Your task to perform on an android device: delete browsing data in the chrome app Image 0: 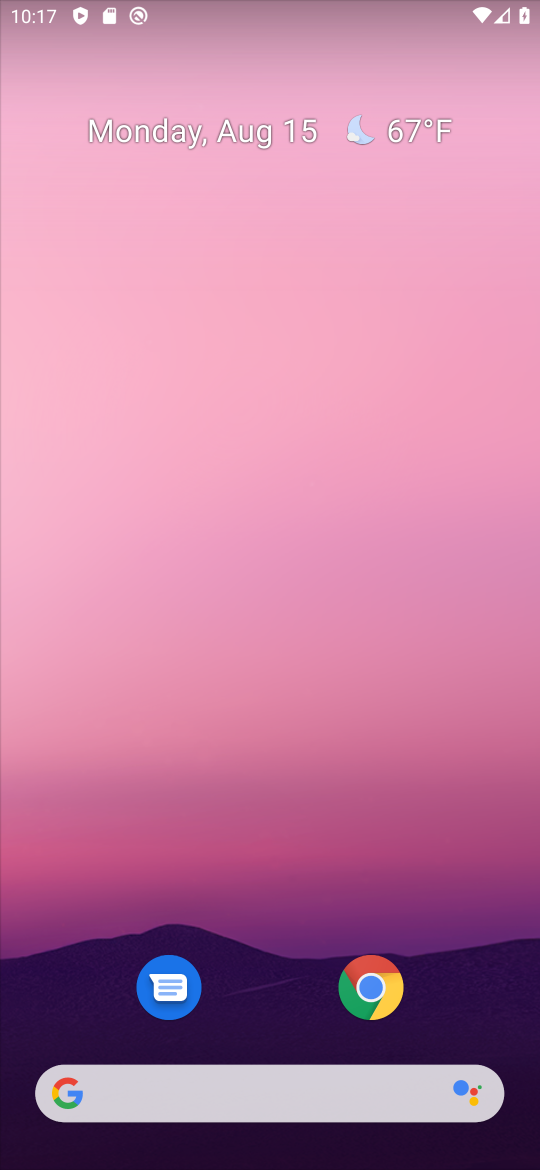
Step 0: drag from (247, 1042) to (176, 0)
Your task to perform on an android device: delete browsing data in the chrome app Image 1: 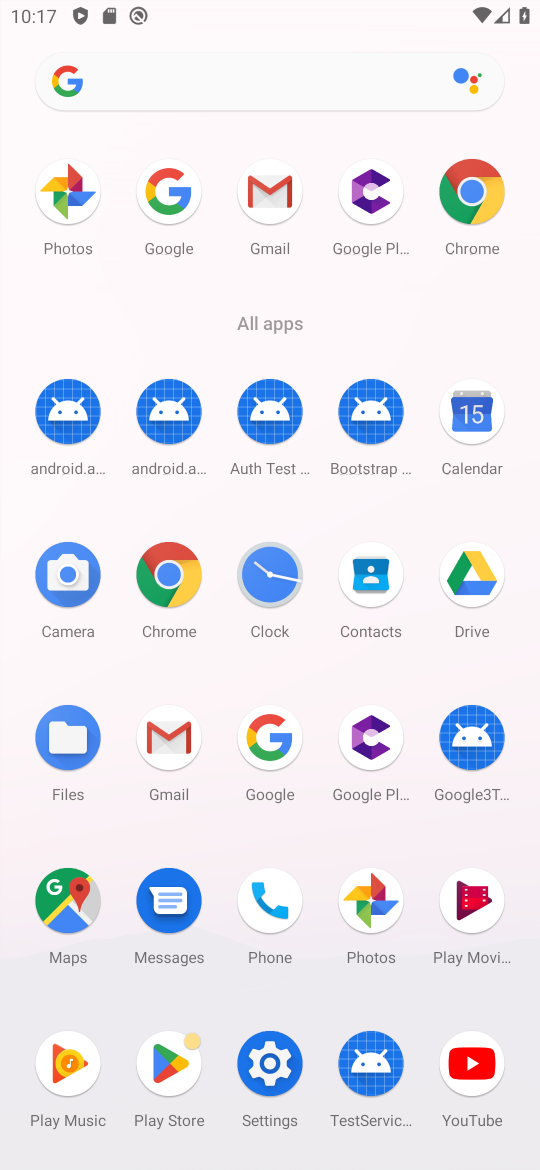
Step 1: click (142, 565)
Your task to perform on an android device: delete browsing data in the chrome app Image 2: 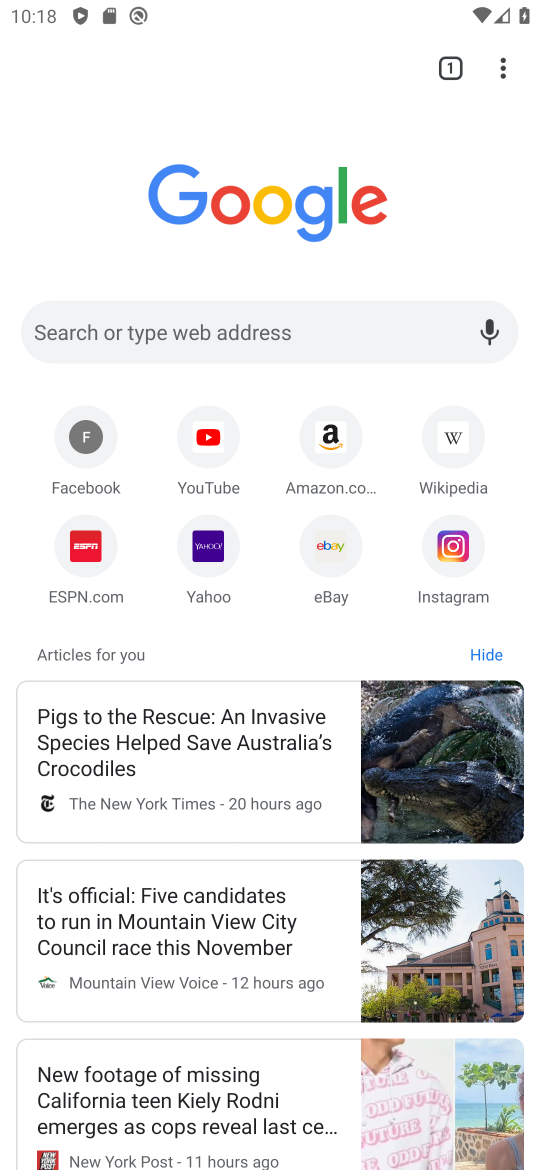
Step 2: click (492, 66)
Your task to perform on an android device: delete browsing data in the chrome app Image 3: 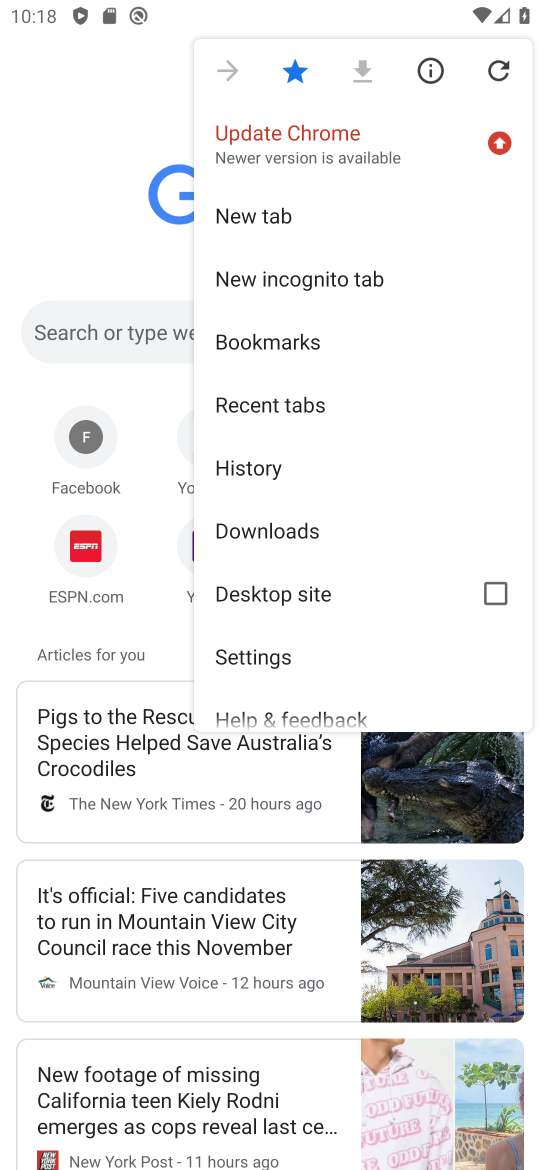
Step 3: click (266, 643)
Your task to perform on an android device: delete browsing data in the chrome app Image 4: 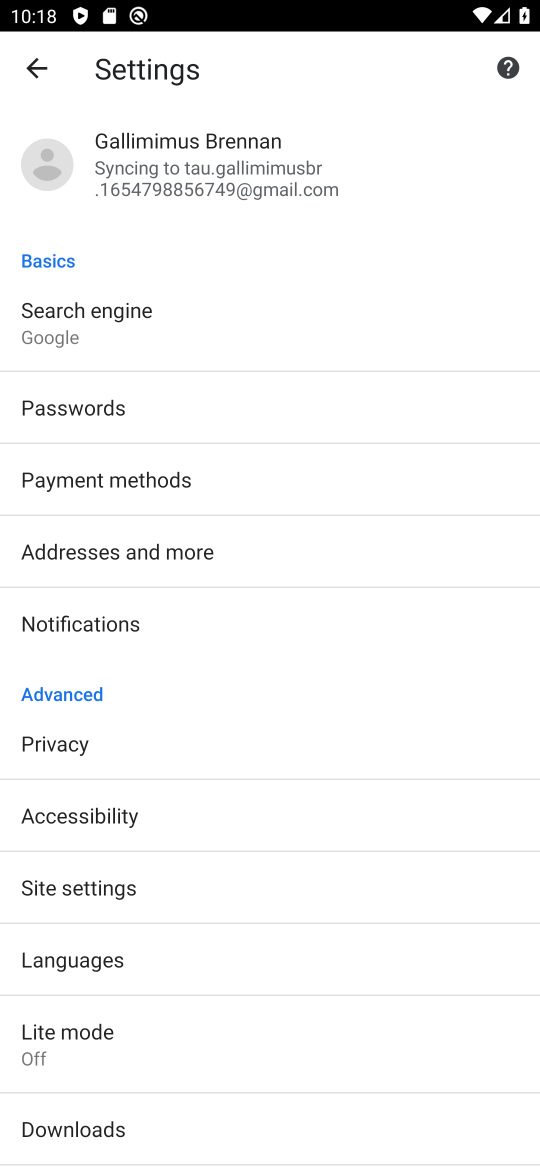
Step 4: drag from (106, 969) to (83, 234)
Your task to perform on an android device: delete browsing data in the chrome app Image 5: 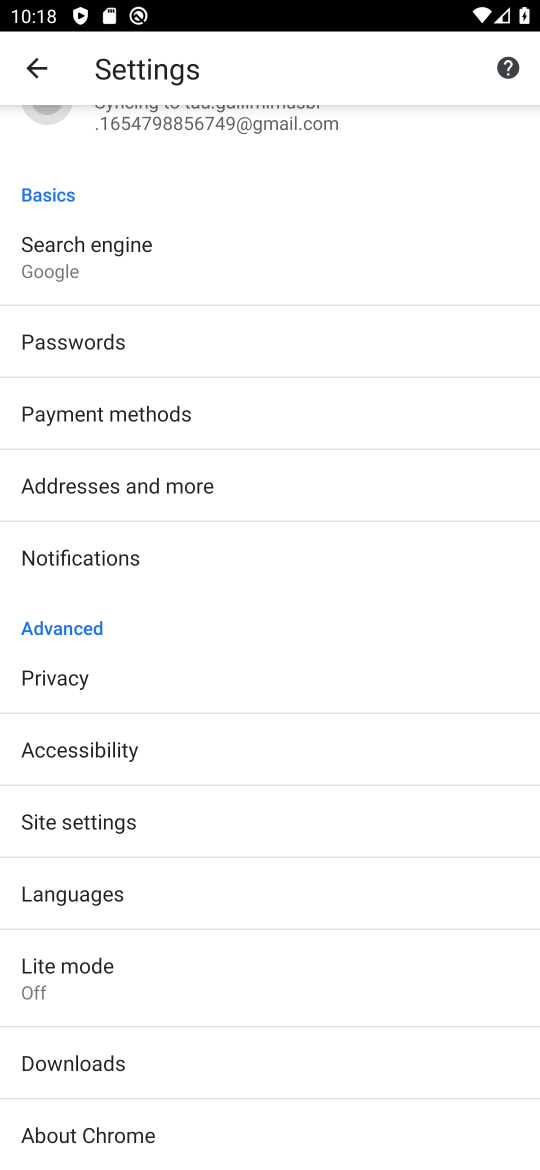
Step 5: click (55, 676)
Your task to perform on an android device: delete browsing data in the chrome app Image 6: 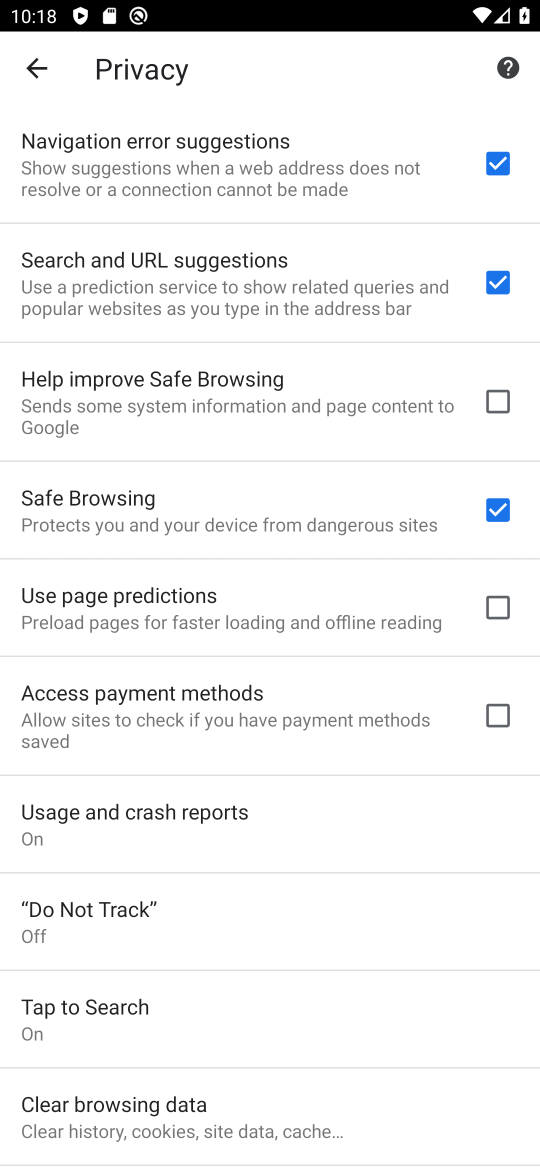
Step 6: click (161, 1127)
Your task to perform on an android device: delete browsing data in the chrome app Image 7: 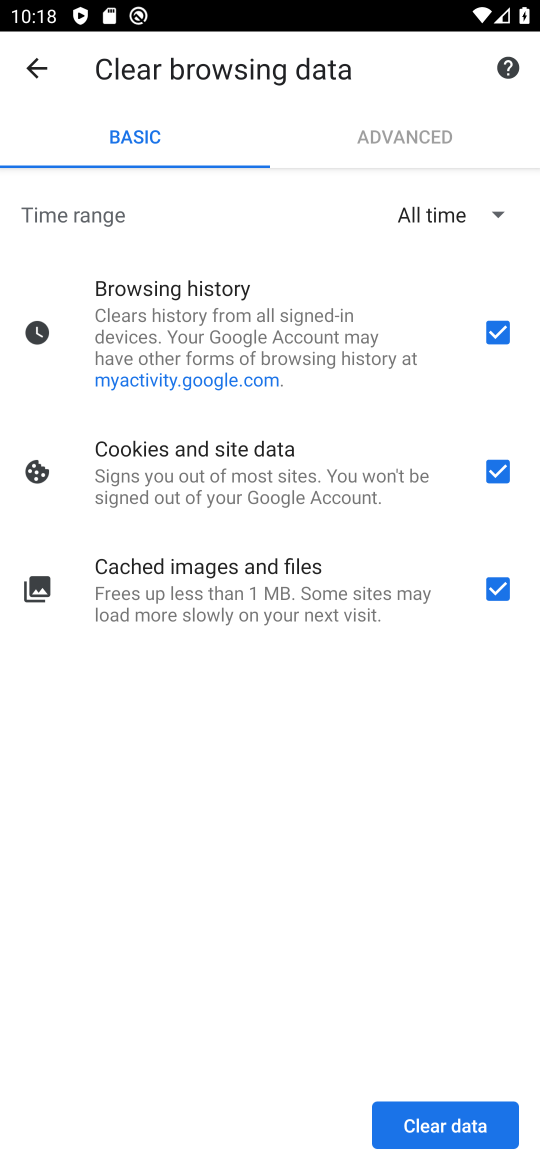
Step 7: click (418, 1134)
Your task to perform on an android device: delete browsing data in the chrome app Image 8: 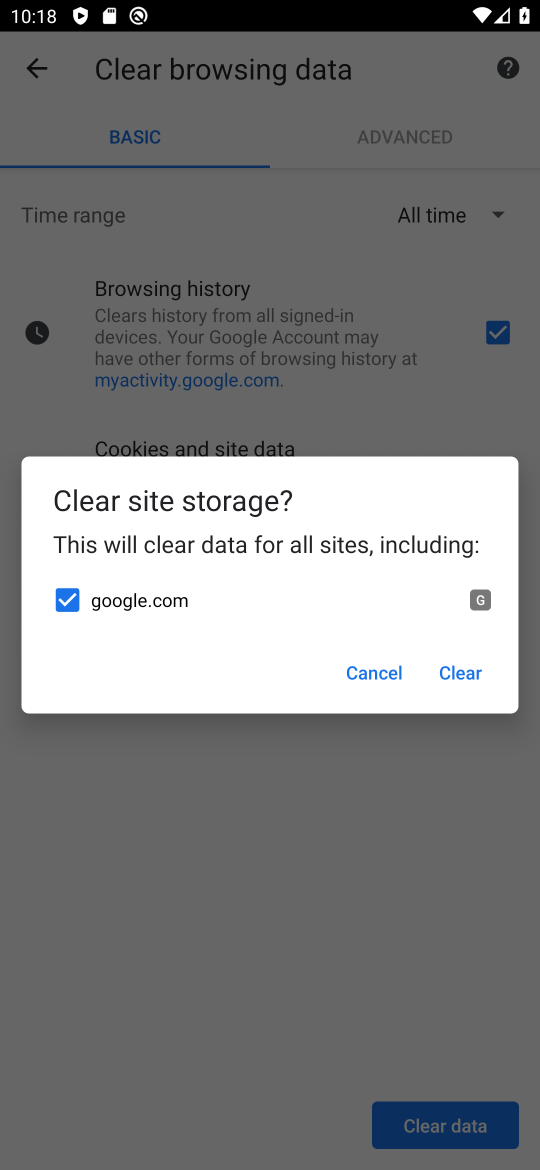
Step 8: click (471, 668)
Your task to perform on an android device: delete browsing data in the chrome app Image 9: 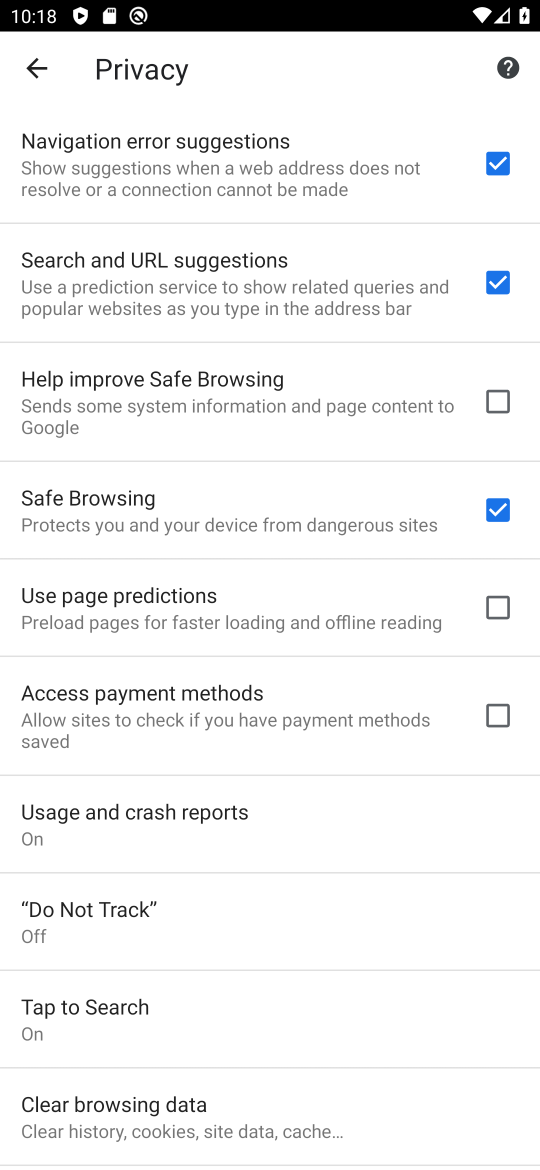
Step 9: task complete